Your task to perform on an android device: Go to sound settings Image 0: 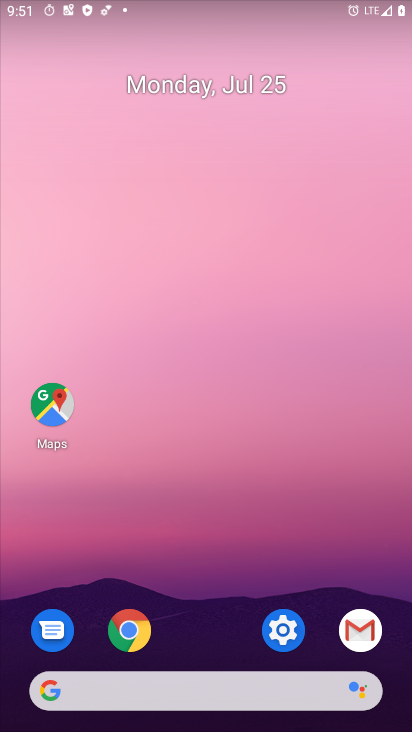
Step 0: click (284, 630)
Your task to perform on an android device: Go to sound settings Image 1: 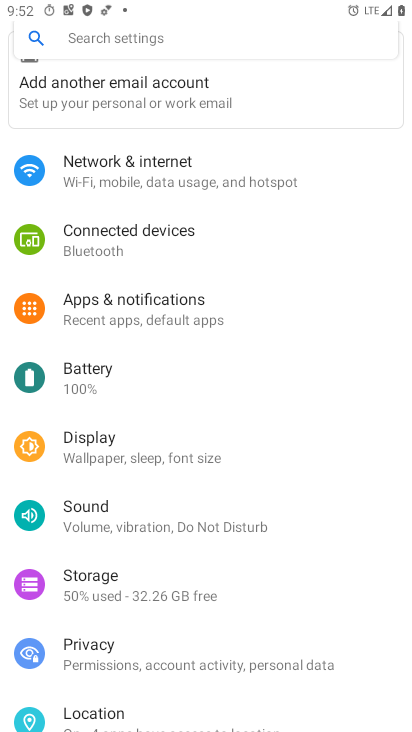
Step 1: click (108, 513)
Your task to perform on an android device: Go to sound settings Image 2: 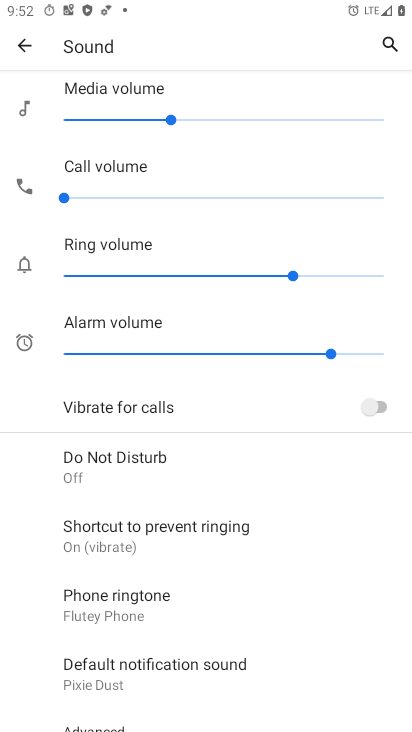
Step 2: task complete